Your task to perform on an android device: open chrome privacy settings Image 0: 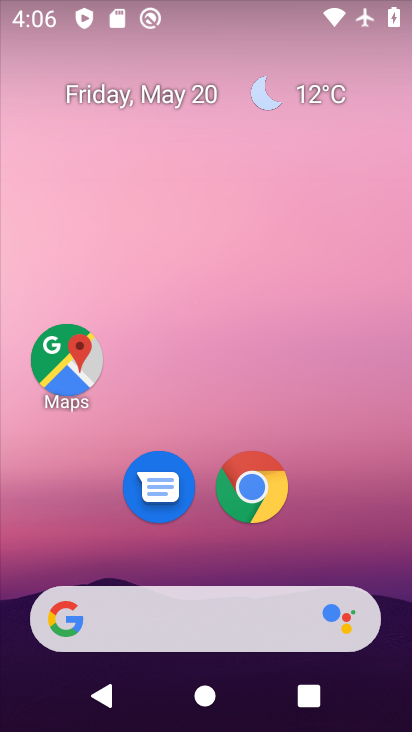
Step 0: drag from (292, 560) to (266, 190)
Your task to perform on an android device: open chrome privacy settings Image 1: 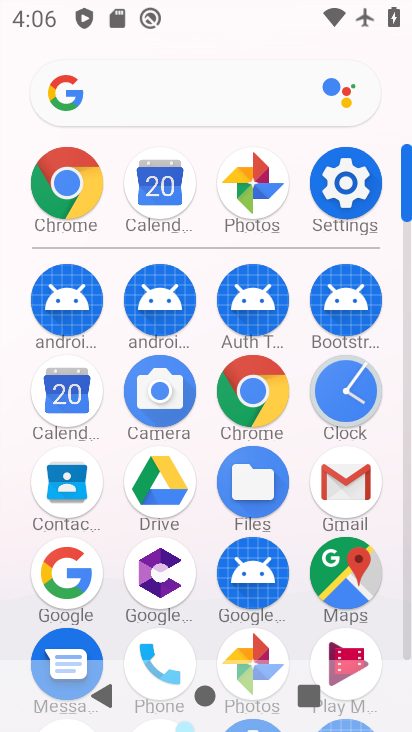
Step 1: click (73, 215)
Your task to perform on an android device: open chrome privacy settings Image 2: 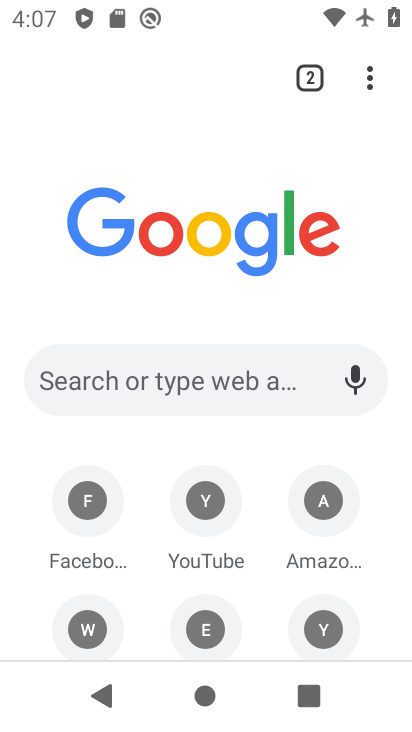
Step 2: click (377, 71)
Your task to perform on an android device: open chrome privacy settings Image 3: 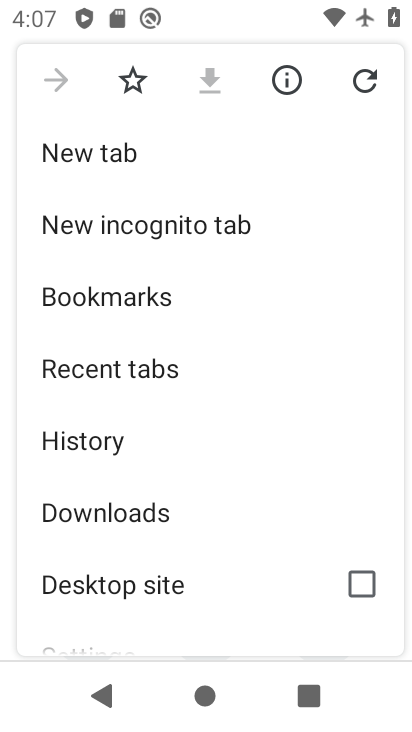
Step 3: press home button
Your task to perform on an android device: open chrome privacy settings Image 4: 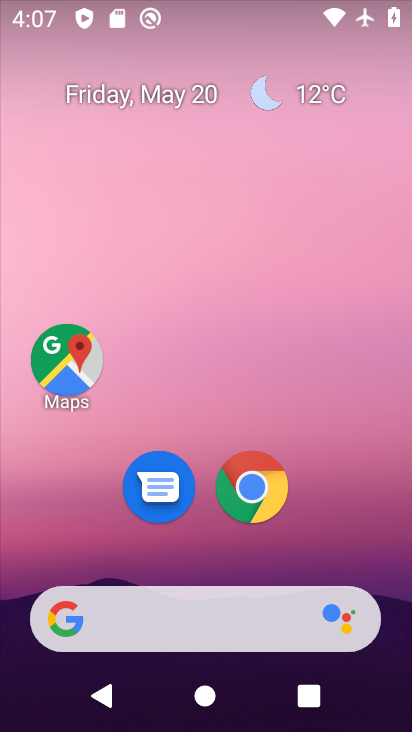
Step 4: drag from (223, 542) to (181, 101)
Your task to perform on an android device: open chrome privacy settings Image 5: 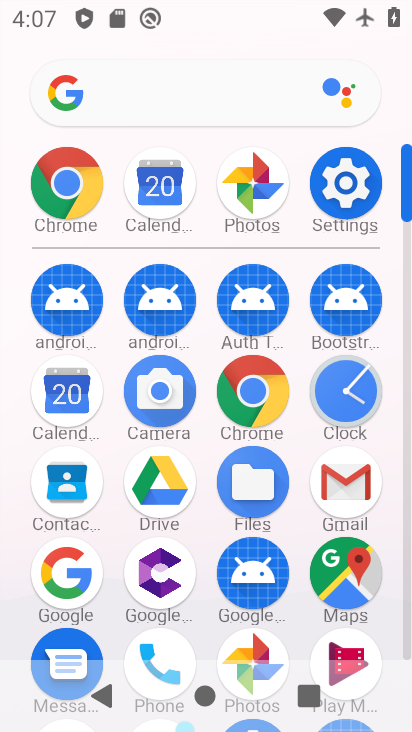
Step 5: click (344, 199)
Your task to perform on an android device: open chrome privacy settings Image 6: 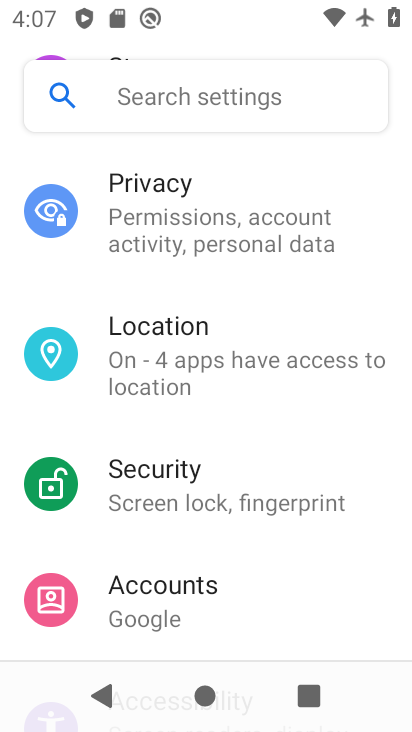
Step 6: click (177, 204)
Your task to perform on an android device: open chrome privacy settings Image 7: 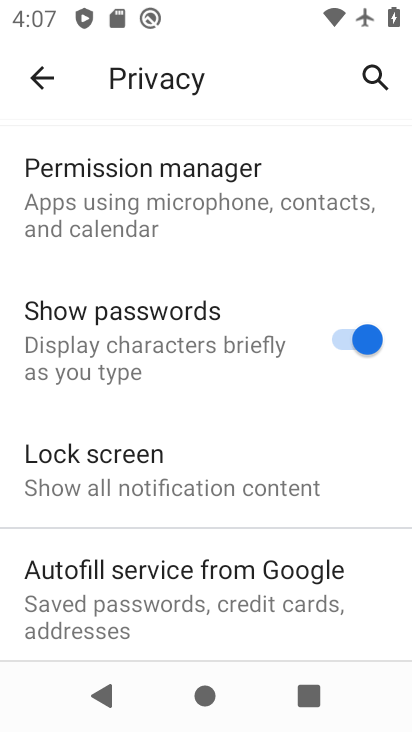
Step 7: task complete